Your task to perform on an android device: turn off notifications in google photos Image 0: 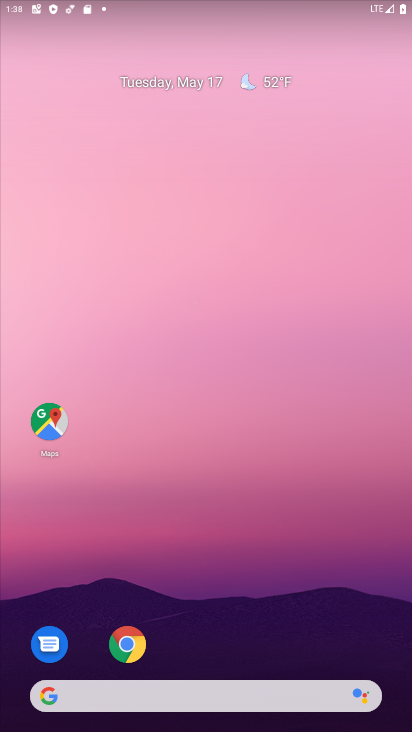
Step 0: drag from (248, 684) to (217, 99)
Your task to perform on an android device: turn off notifications in google photos Image 1: 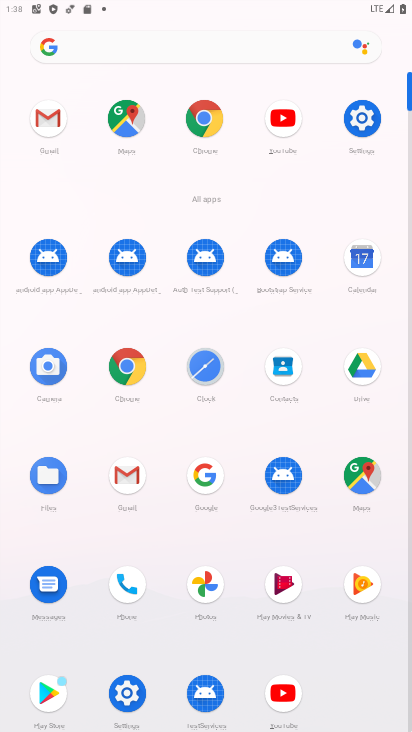
Step 1: click (210, 581)
Your task to perform on an android device: turn off notifications in google photos Image 2: 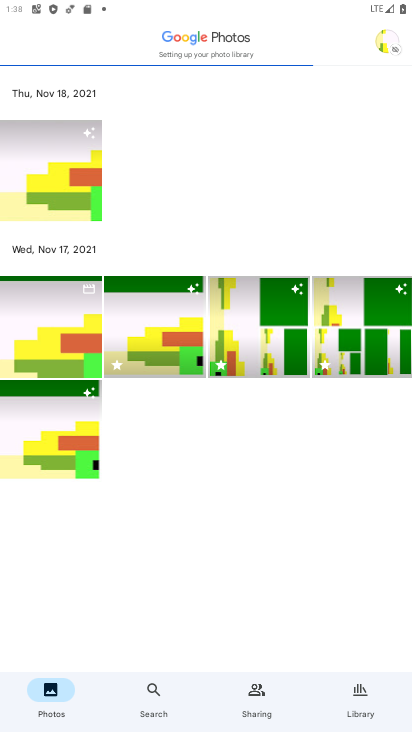
Step 2: click (395, 43)
Your task to perform on an android device: turn off notifications in google photos Image 3: 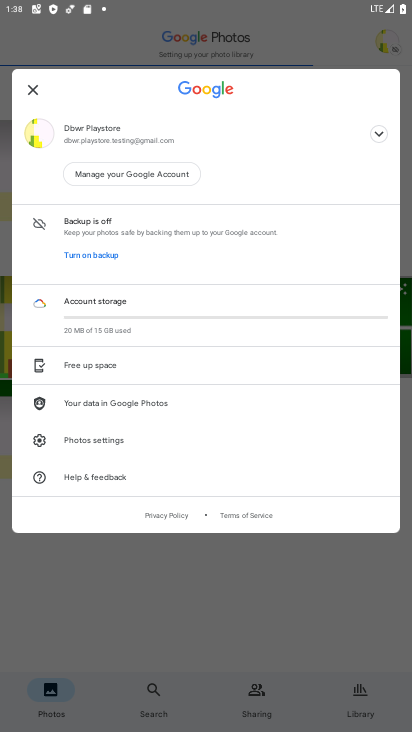
Step 3: click (114, 432)
Your task to perform on an android device: turn off notifications in google photos Image 4: 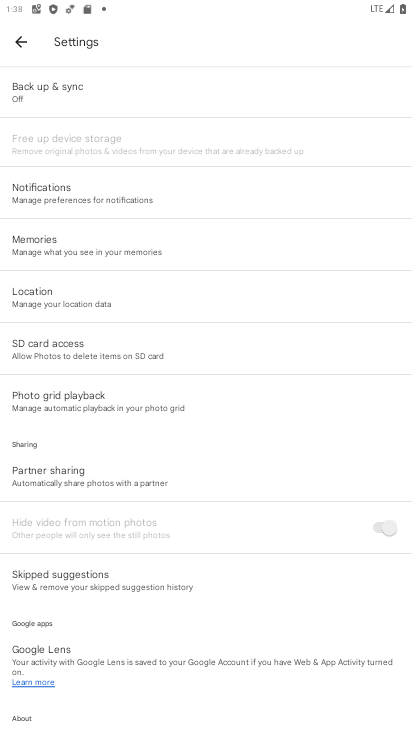
Step 4: click (123, 205)
Your task to perform on an android device: turn off notifications in google photos Image 5: 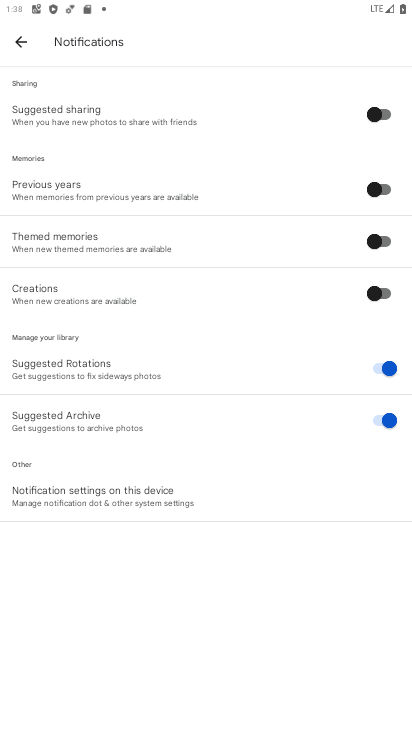
Step 5: click (132, 507)
Your task to perform on an android device: turn off notifications in google photos Image 6: 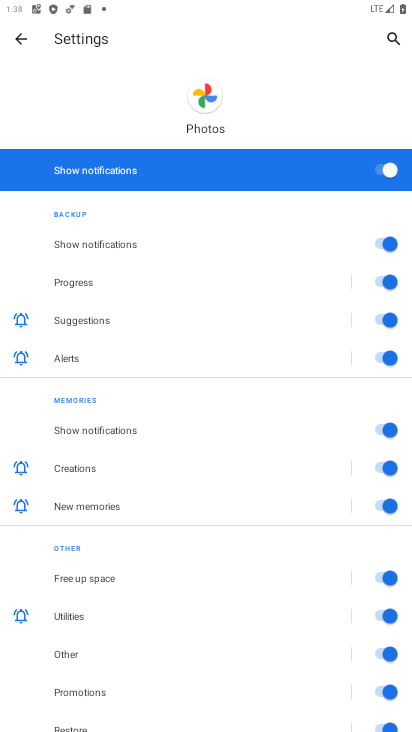
Step 6: click (382, 165)
Your task to perform on an android device: turn off notifications in google photos Image 7: 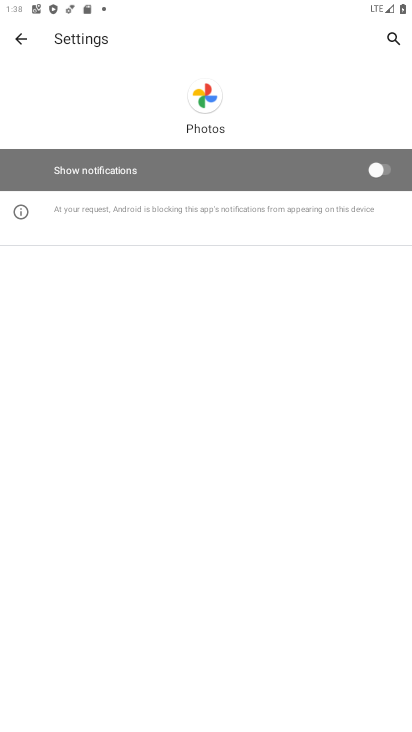
Step 7: task complete